Your task to perform on an android device: change the clock display to show seconds Image 0: 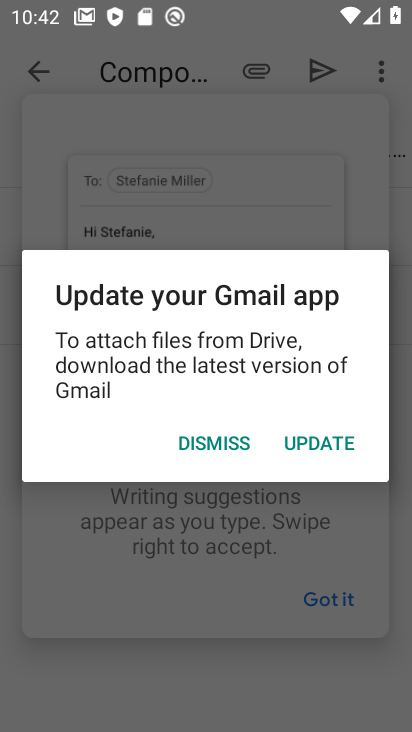
Step 0: press home button
Your task to perform on an android device: change the clock display to show seconds Image 1: 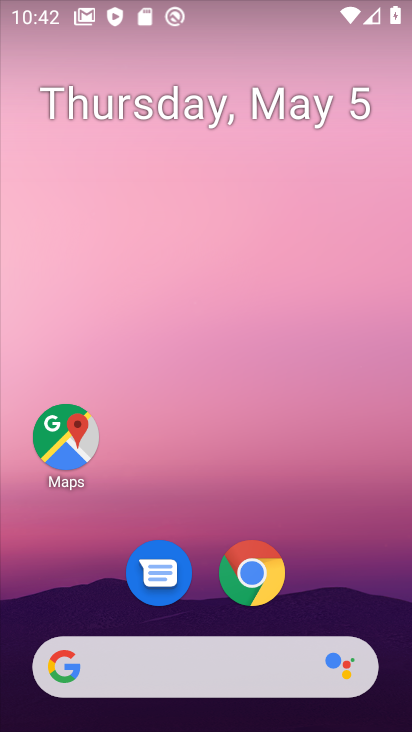
Step 1: drag from (332, 598) to (354, 178)
Your task to perform on an android device: change the clock display to show seconds Image 2: 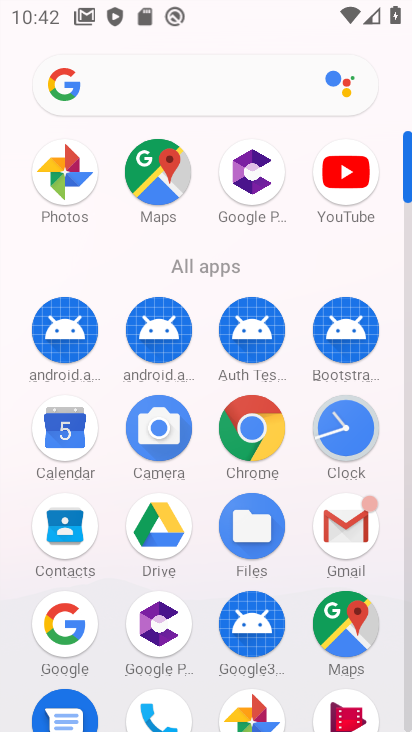
Step 2: click (342, 429)
Your task to perform on an android device: change the clock display to show seconds Image 3: 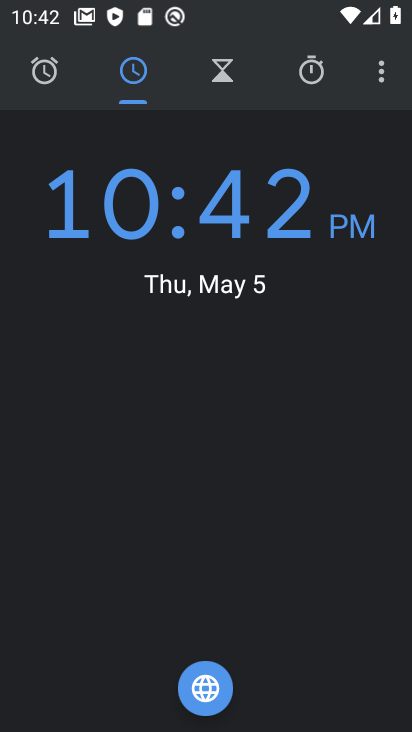
Step 3: click (373, 76)
Your task to perform on an android device: change the clock display to show seconds Image 4: 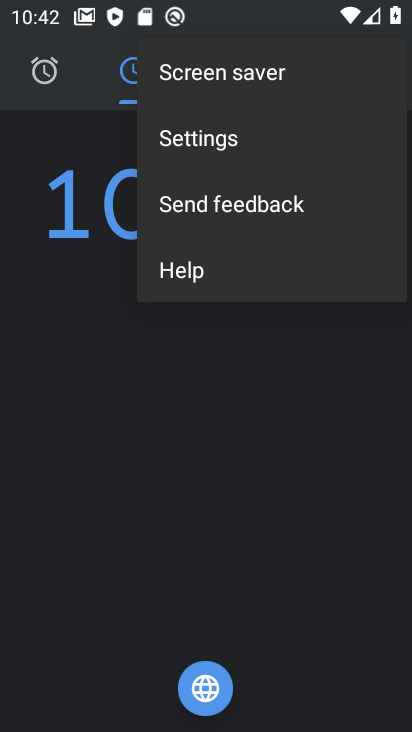
Step 4: click (217, 140)
Your task to perform on an android device: change the clock display to show seconds Image 5: 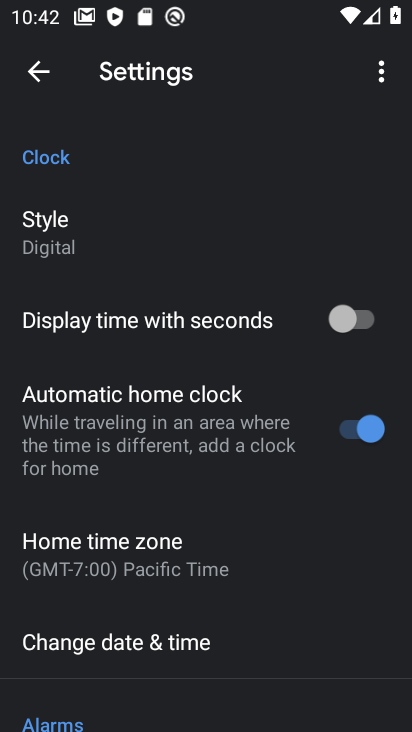
Step 5: click (356, 316)
Your task to perform on an android device: change the clock display to show seconds Image 6: 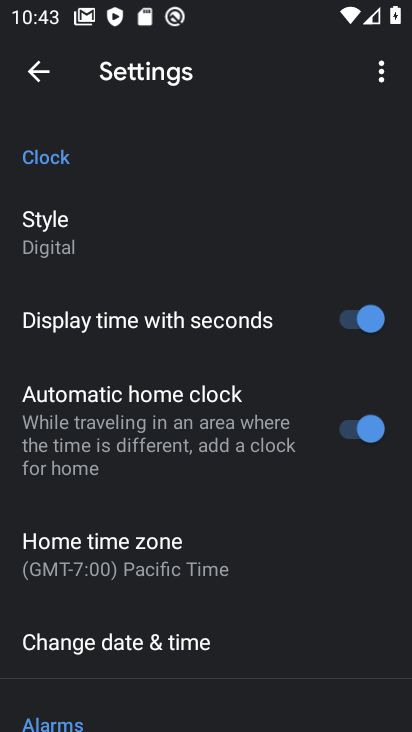
Step 6: task complete